Your task to perform on an android device: all mails in gmail Image 0: 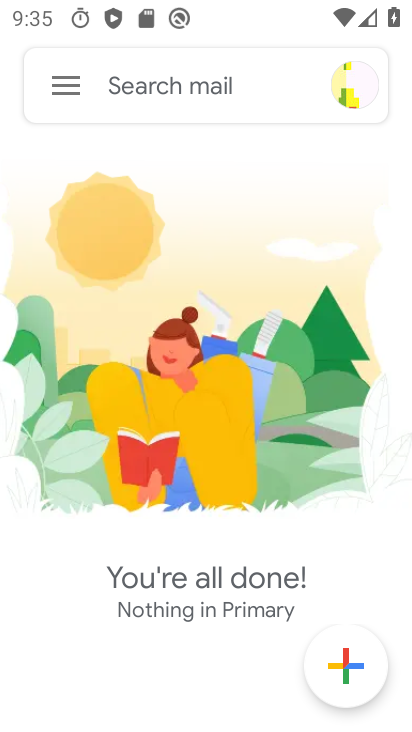
Step 0: press home button
Your task to perform on an android device: all mails in gmail Image 1: 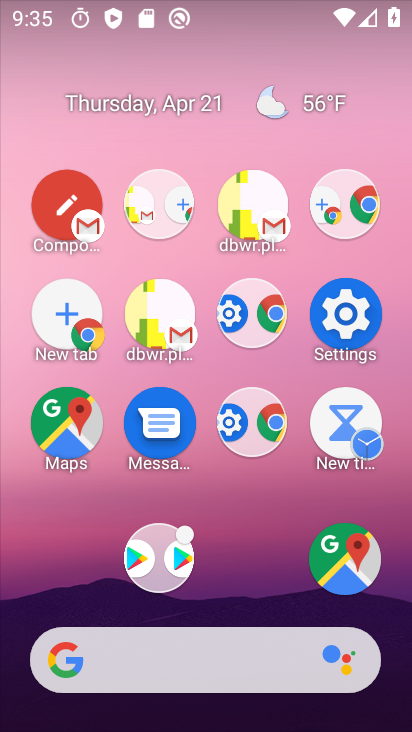
Step 1: drag from (264, 601) to (164, 44)
Your task to perform on an android device: all mails in gmail Image 2: 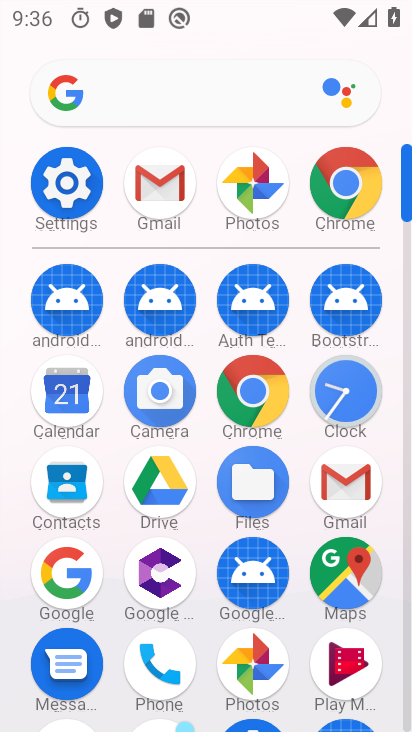
Step 2: click (339, 485)
Your task to perform on an android device: all mails in gmail Image 3: 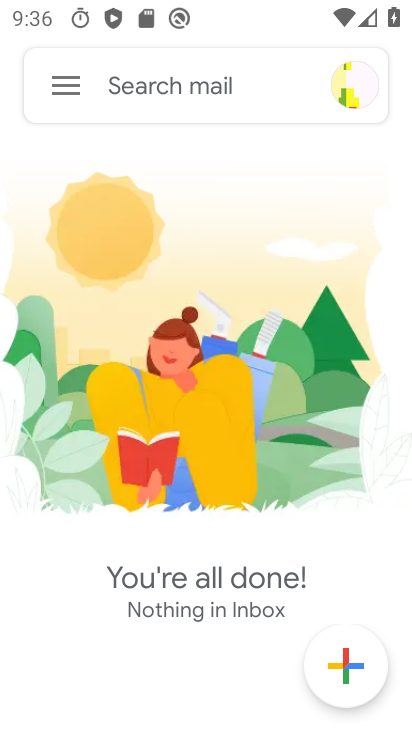
Step 3: click (63, 72)
Your task to perform on an android device: all mails in gmail Image 4: 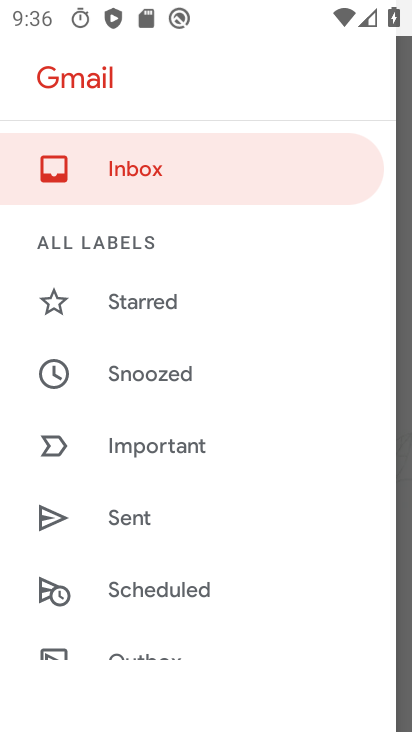
Step 4: drag from (185, 583) to (140, 187)
Your task to perform on an android device: all mails in gmail Image 5: 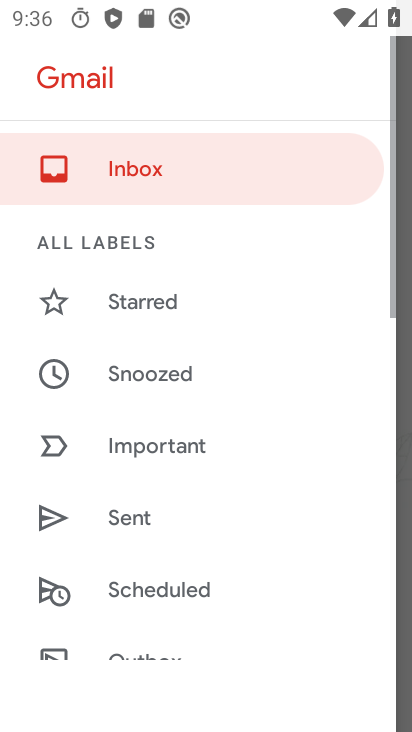
Step 5: drag from (171, 364) to (171, 124)
Your task to perform on an android device: all mails in gmail Image 6: 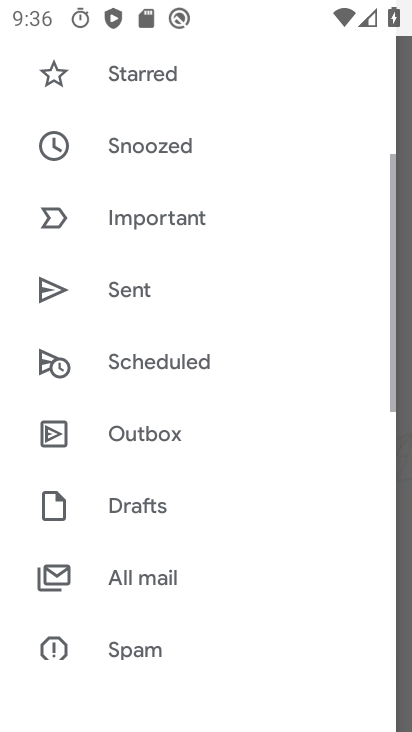
Step 6: drag from (234, 405) to (193, 190)
Your task to perform on an android device: all mails in gmail Image 7: 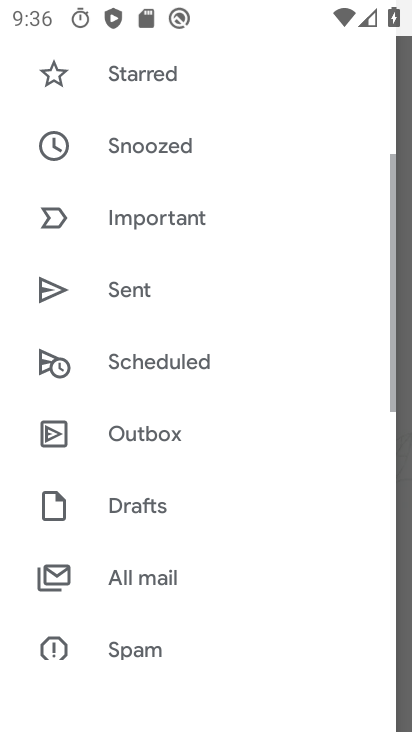
Step 7: drag from (207, 223) to (206, 123)
Your task to perform on an android device: all mails in gmail Image 8: 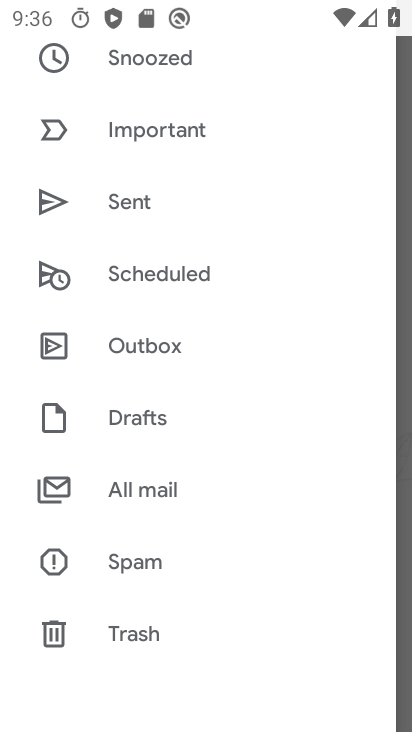
Step 8: click (147, 485)
Your task to perform on an android device: all mails in gmail Image 9: 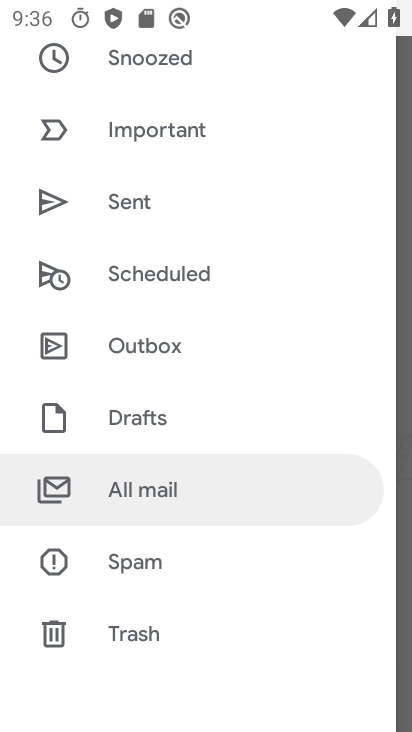
Step 9: click (153, 491)
Your task to perform on an android device: all mails in gmail Image 10: 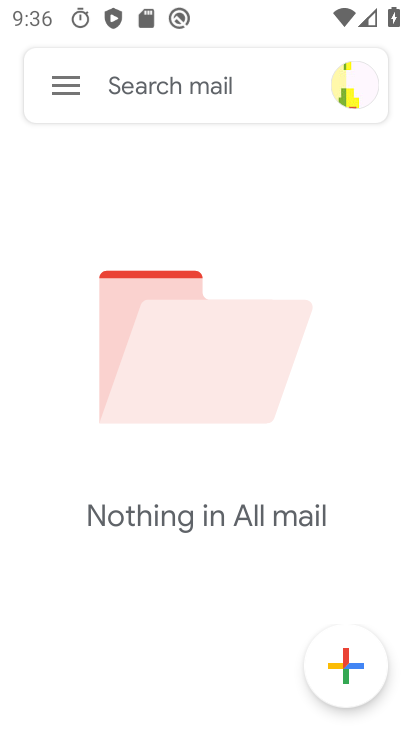
Step 10: task complete